Your task to perform on an android device: set the timer Image 0: 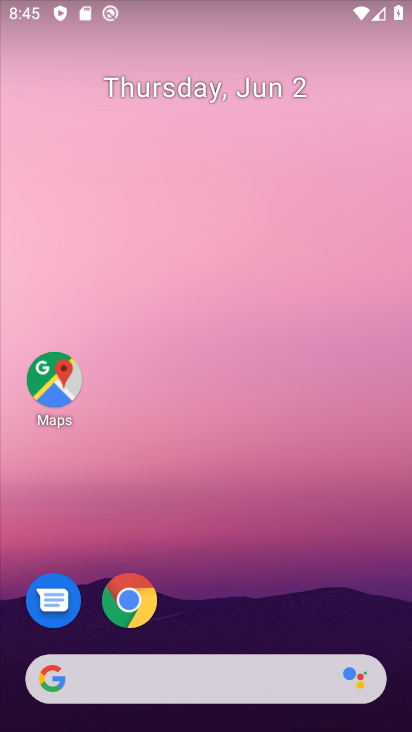
Step 0: drag from (177, 389) to (185, 53)
Your task to perform on an android device: set the timer Image 1: 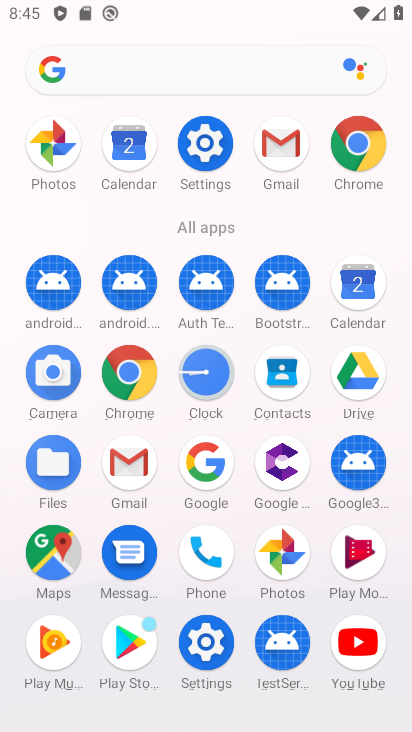
Step 1: click (207, 387)
Your task to perform on an android device: set the timer Image 2: 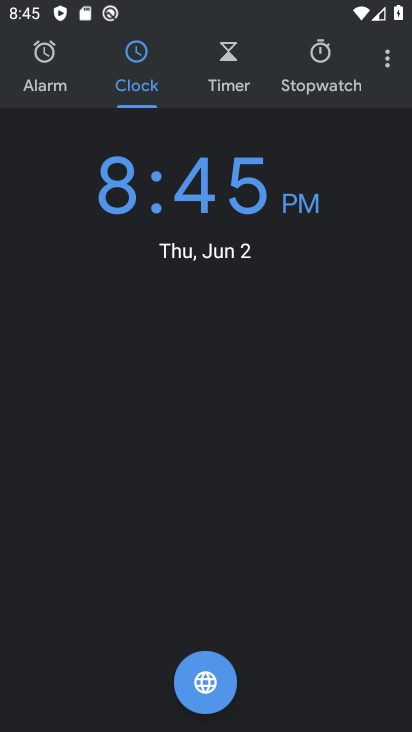
Step 2: click (226, 57)
Your task to perform on an android device: set the timer Image 3: 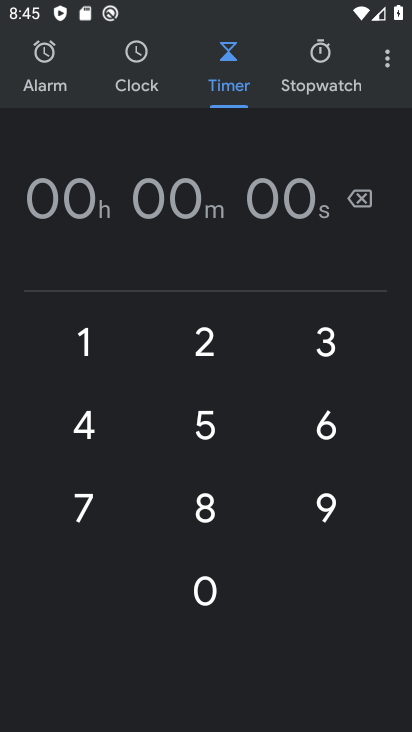
Step 3: click (80, 416)
Your task to perform on an android device: set the timer Image 4: 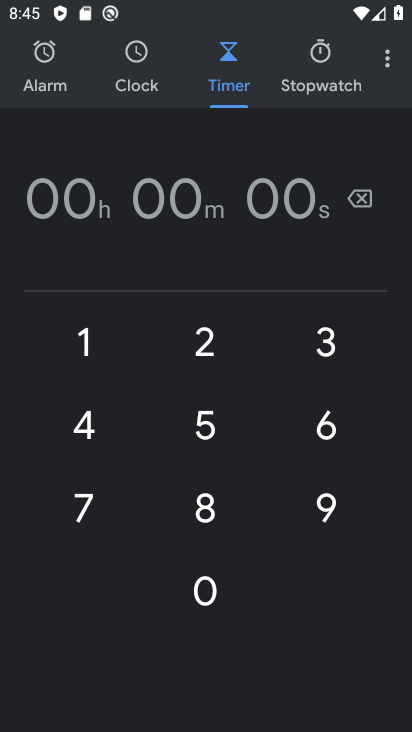
Step 4: click (80, 416)
Your task to perform on an android device: set the timer Image 5: 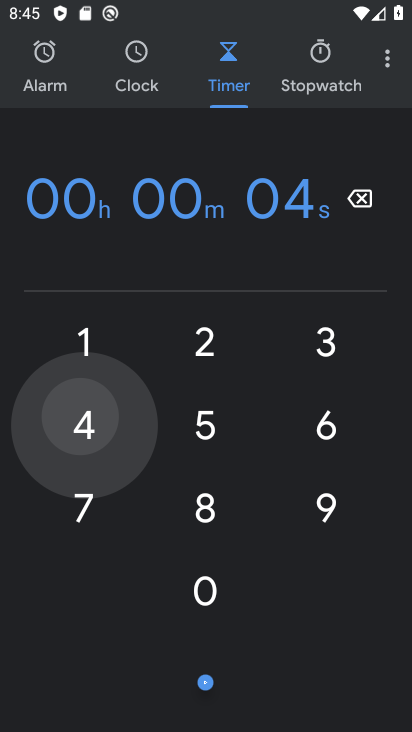
Step 5: click (80, 416)
Your task to perform on an android device: set the timer Image 6: 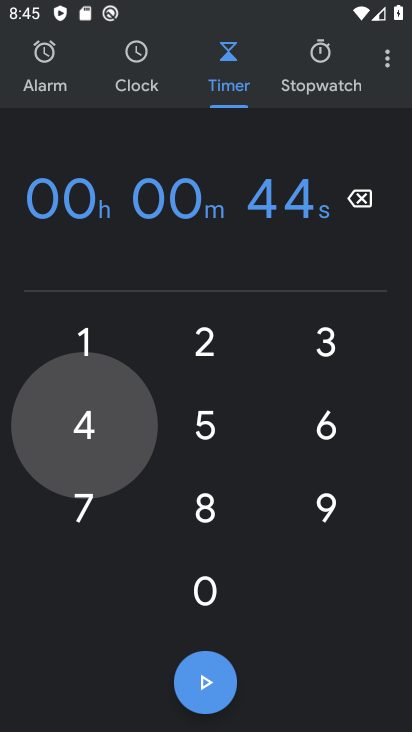
Step 6: click (80, 416)
Your task to perform on an android device: set the timer Image 7: 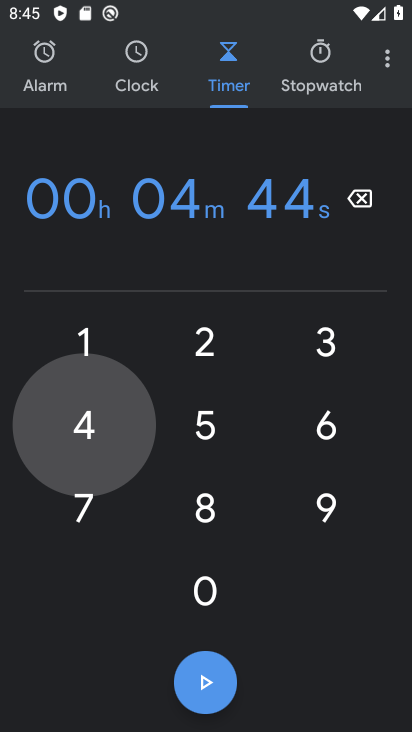
Step 7: click (80, 416)
Your task to perform on an android device: set the timer Image 8: 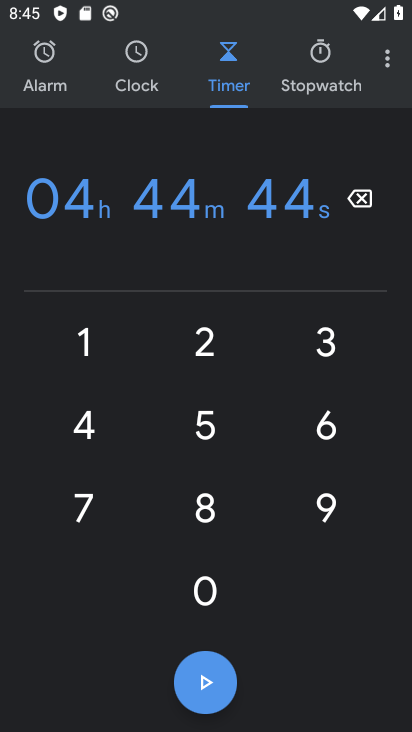
Step 8: click (203, 686)
Your task to perform on an android device: set the timer Image 9: 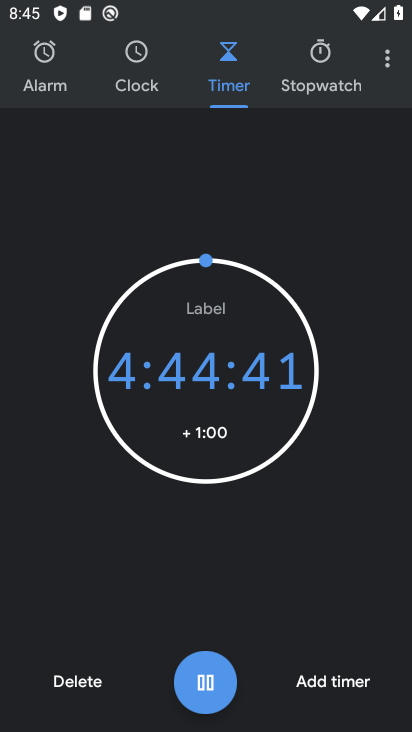
Step 9: task complete